Your task to perform on an android device: View the shopping cart on bestbuy. Search for "energizer triple a" on bestbuy, select the first entry, and add it to the cart. Image 0: 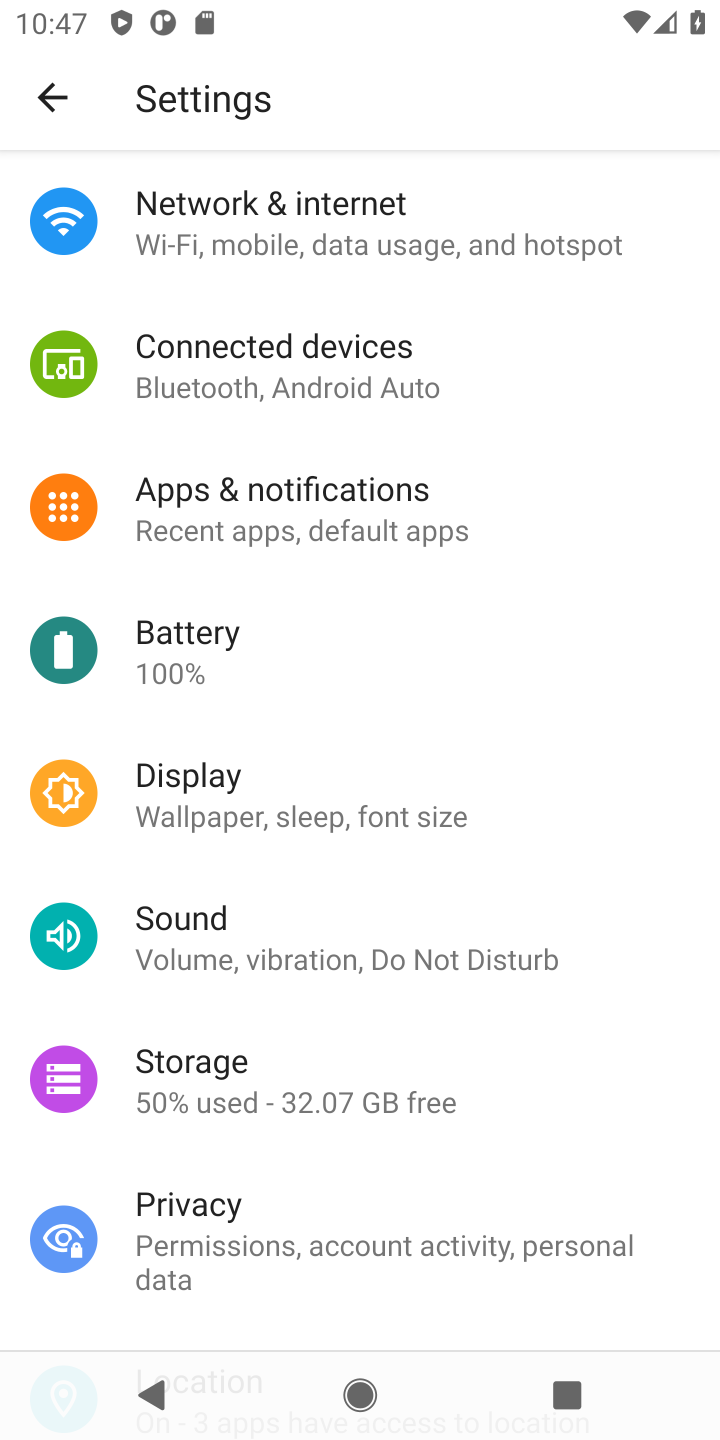
Step 0: press home button
Your task to perform on an android device: View the shopping cart on bestbuy. Search for "energizer triple a" on bestbuy, select the first entry, and add it to the cart. Image 1: 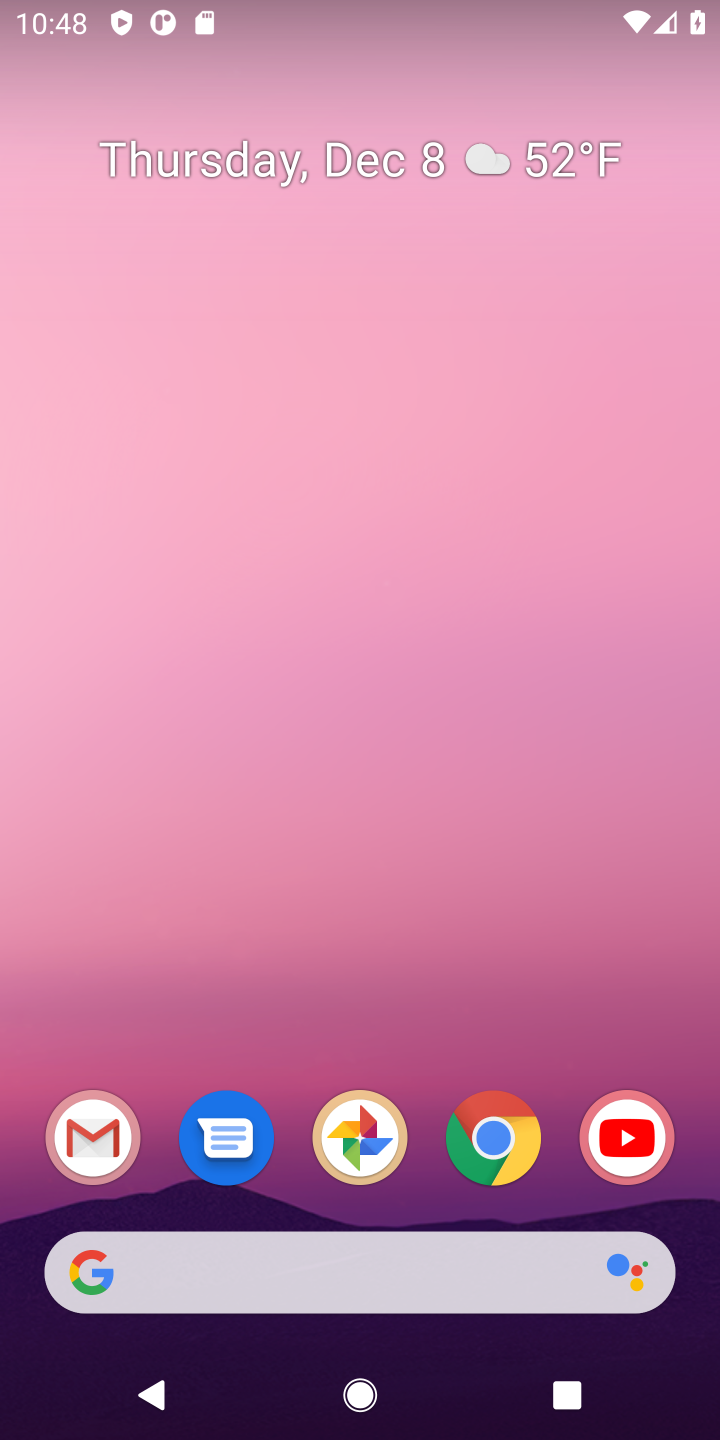
Step 1: click (506, 1117)
Your task to perform on an android device: View the shopping cart on bestbuy. Search for "energizer triple a" on bestbuy, select the first entry, and add it to the cart. Image 2: 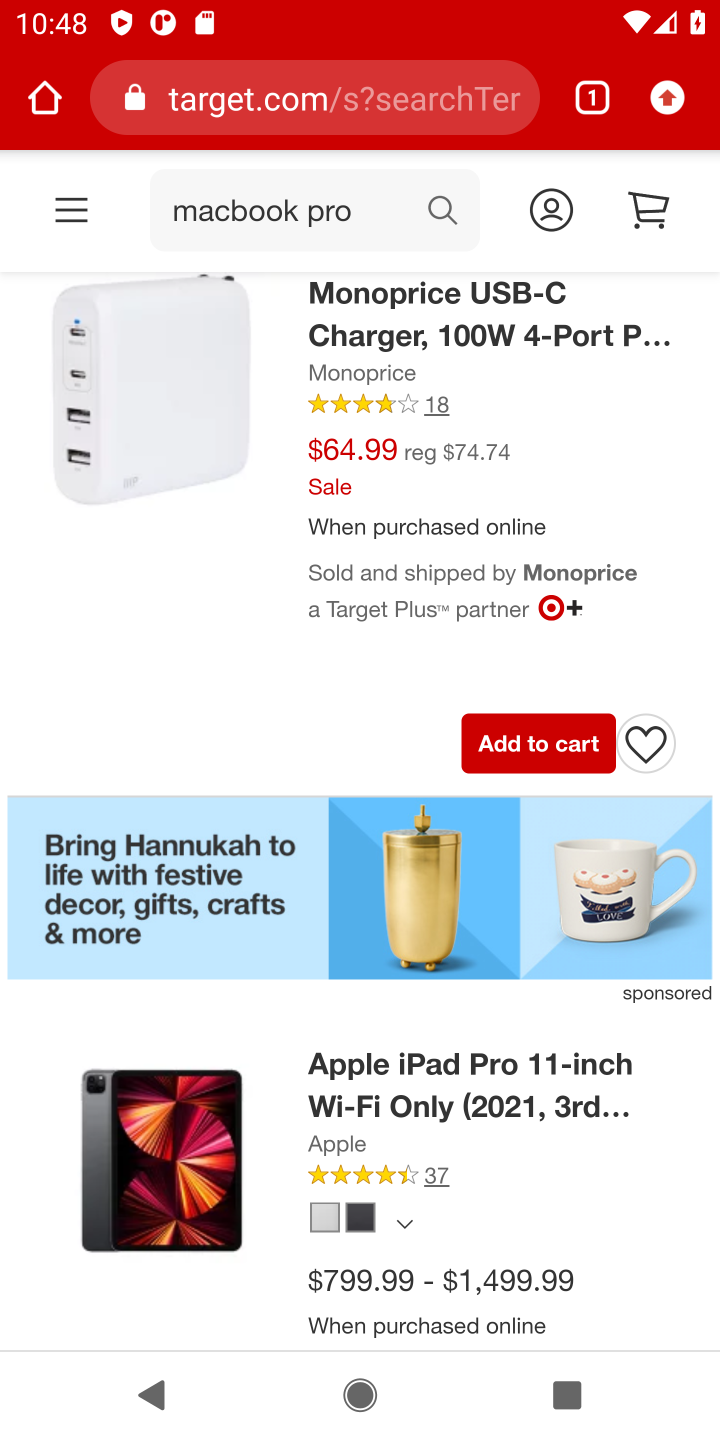
Step 2: click (386, 98)
Your task to perform on an android device: View the shopping cart on bestbuy. Search for "energizer triple a" on bestbuy, select the first entry, and add it to the cart. Image 3: 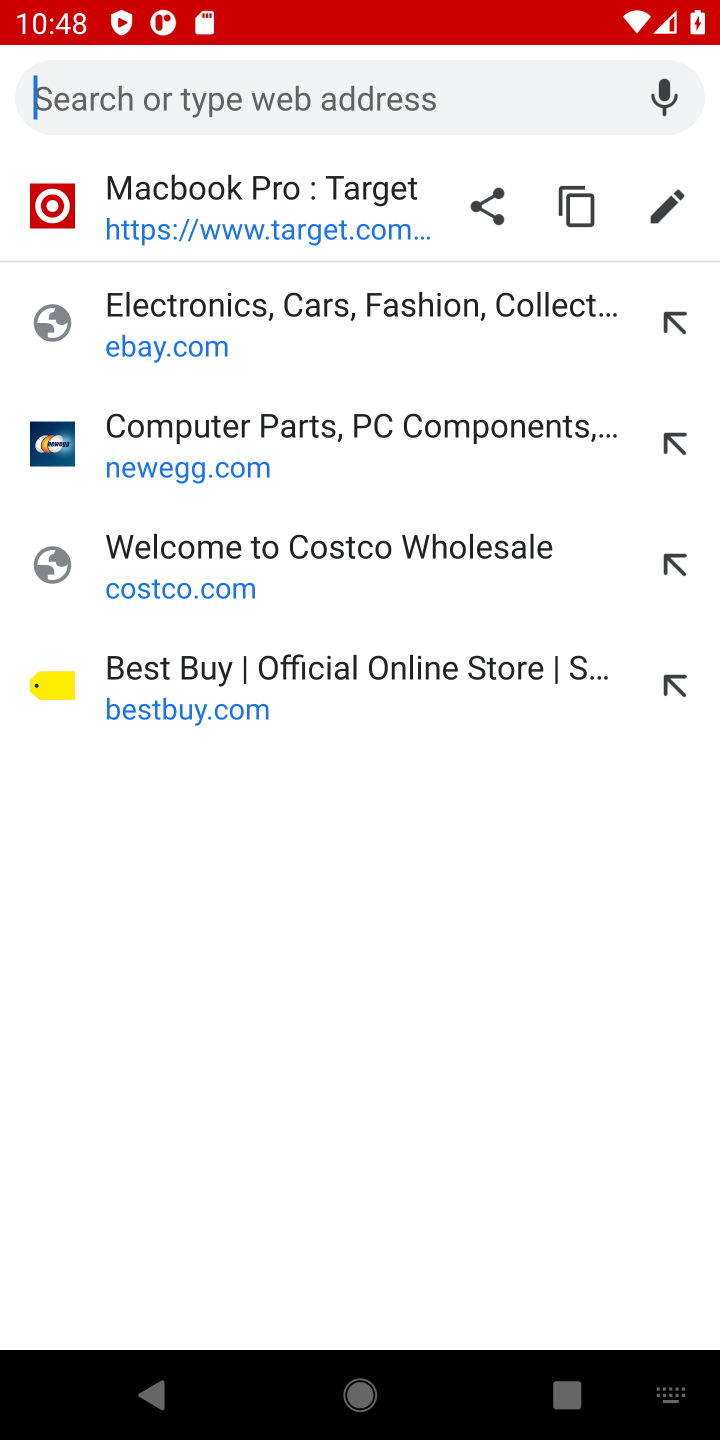
Step 3: click (140, 669)
Your task to perform on an android device: View the shopping cart on bestbuy. Search for "energizer triple a" on bestbuy, select the first entry, and add it to the cart. Image 4: 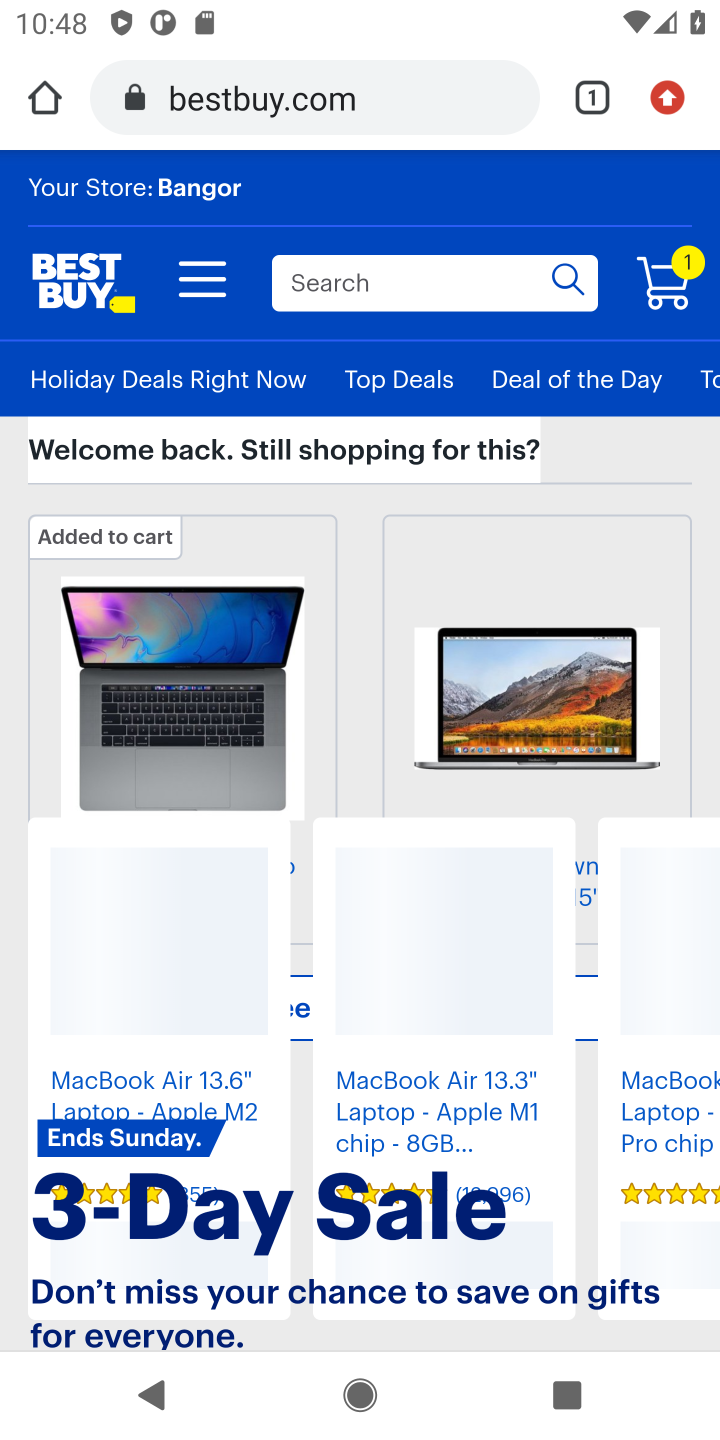
Step 4: click (664, 280)
Your task to perform on an android device: View the shopping cart on bestbuy. Search for "energizer triple a" on bestbuy, select the first entry, and add it to the cart. Image 5: 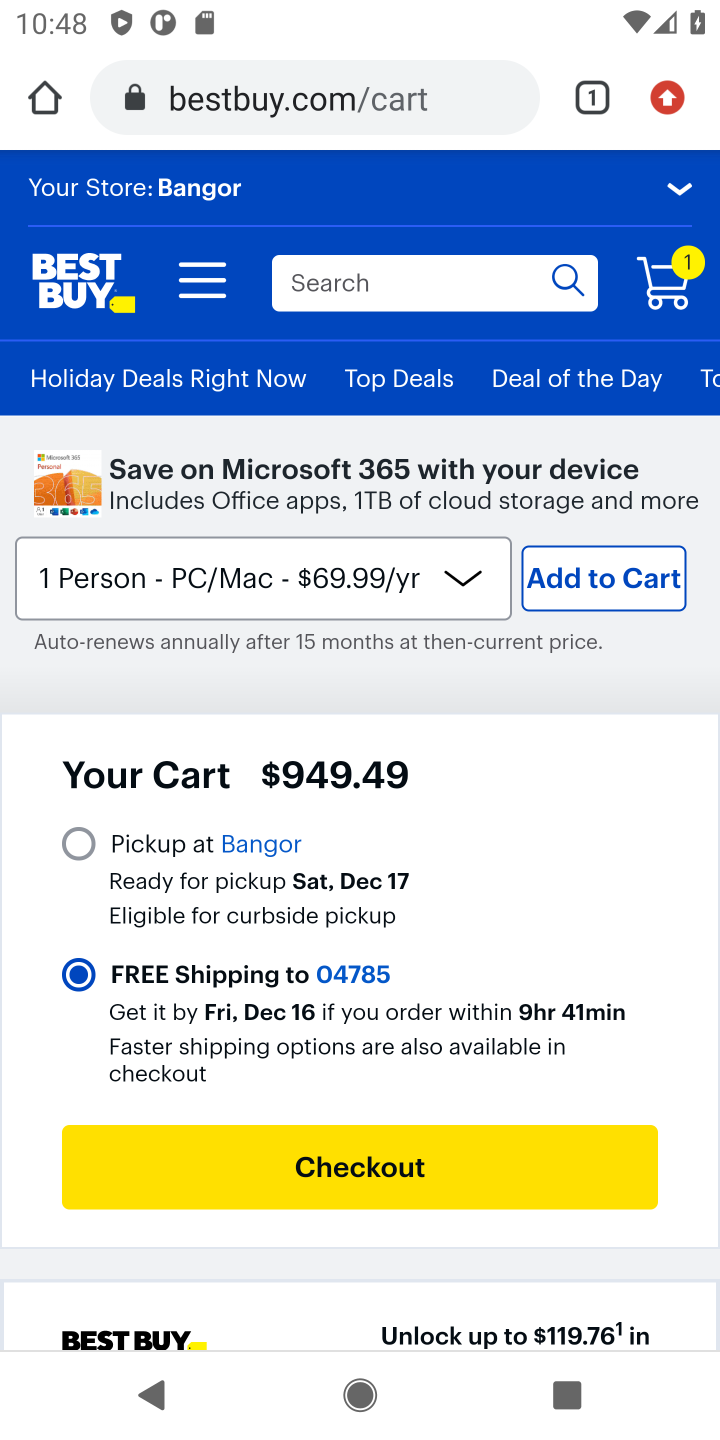
Step 5: click (685, 281)
Your task to perform on an android device: View the shopping cart on bestbuy. Search for "energizer triple a" on bestbuy, select the first entry, and add it to the cart. Image 6: 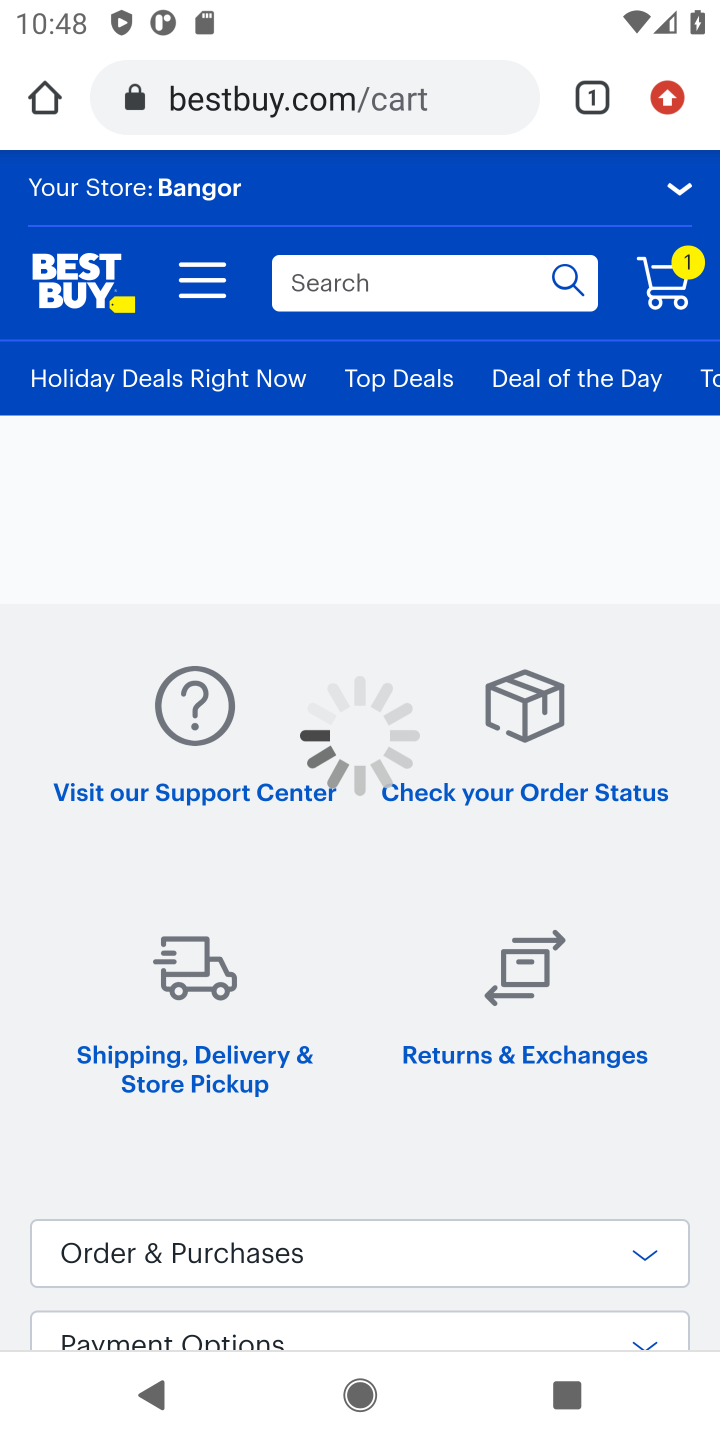
Step 6: click (416, 277)
Your task to perform on an android device: View the shopping cart on bestbuy. Search for "energizer triple a" on bestbuy, select the first entry, and add it to the cart. Image 7: 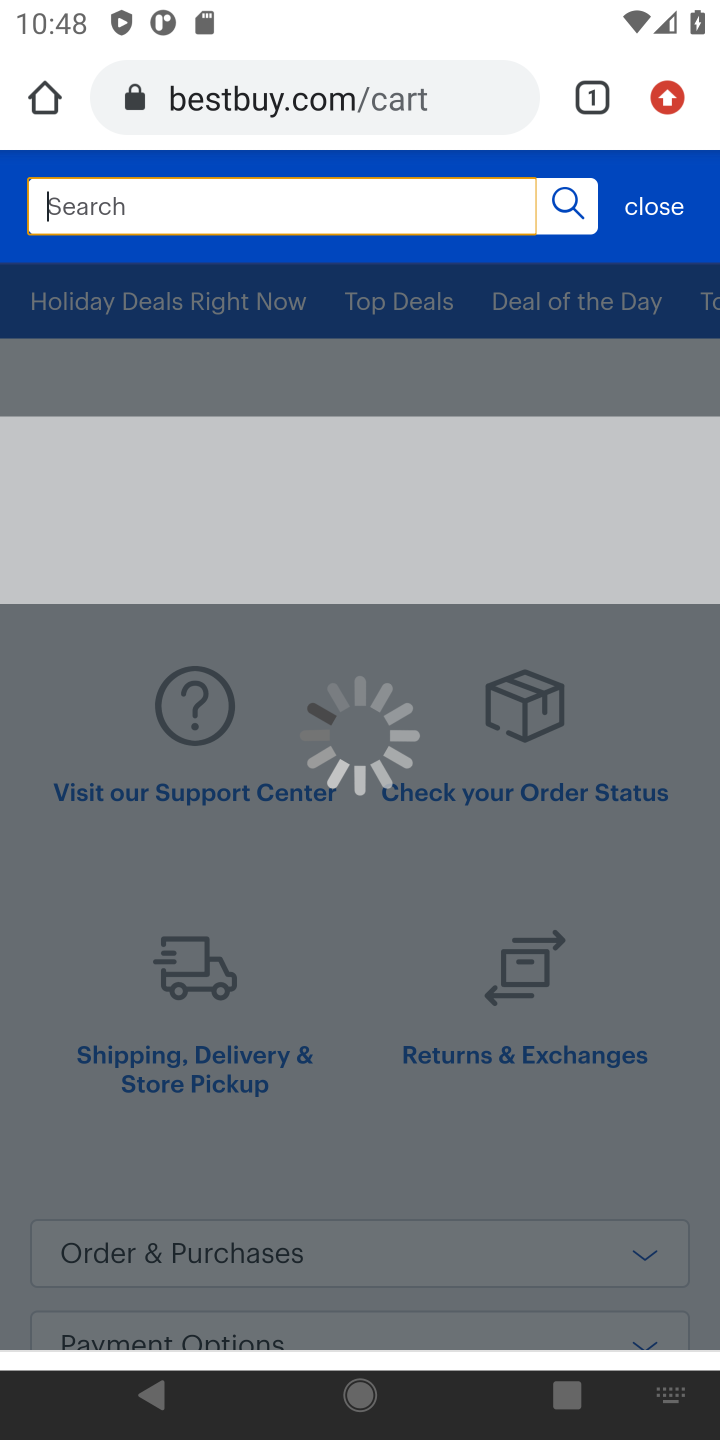
Step 7: click (569, 278)
Your task to perform on an android device: View the shopping cart on bestbuy. Search for "energizer triple a" on bestbuy, select the first entry, and add it to the cart. Image 8: 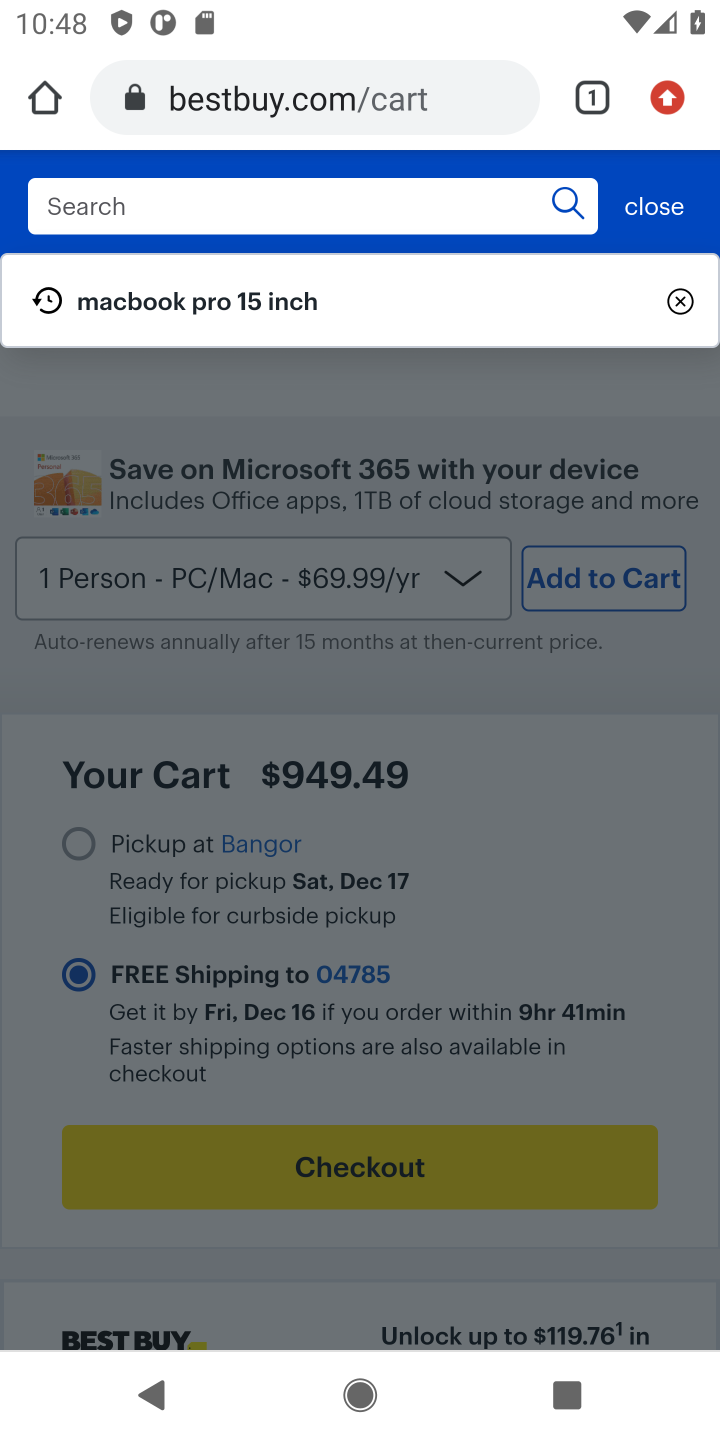
Step 8: type "energizer triple a"
Your task to perform on an android device: View the shopping cart on bestbuy. Search for "energizer triple a" on bestbuy, select the first entry, and add it to the cart. Image 9: 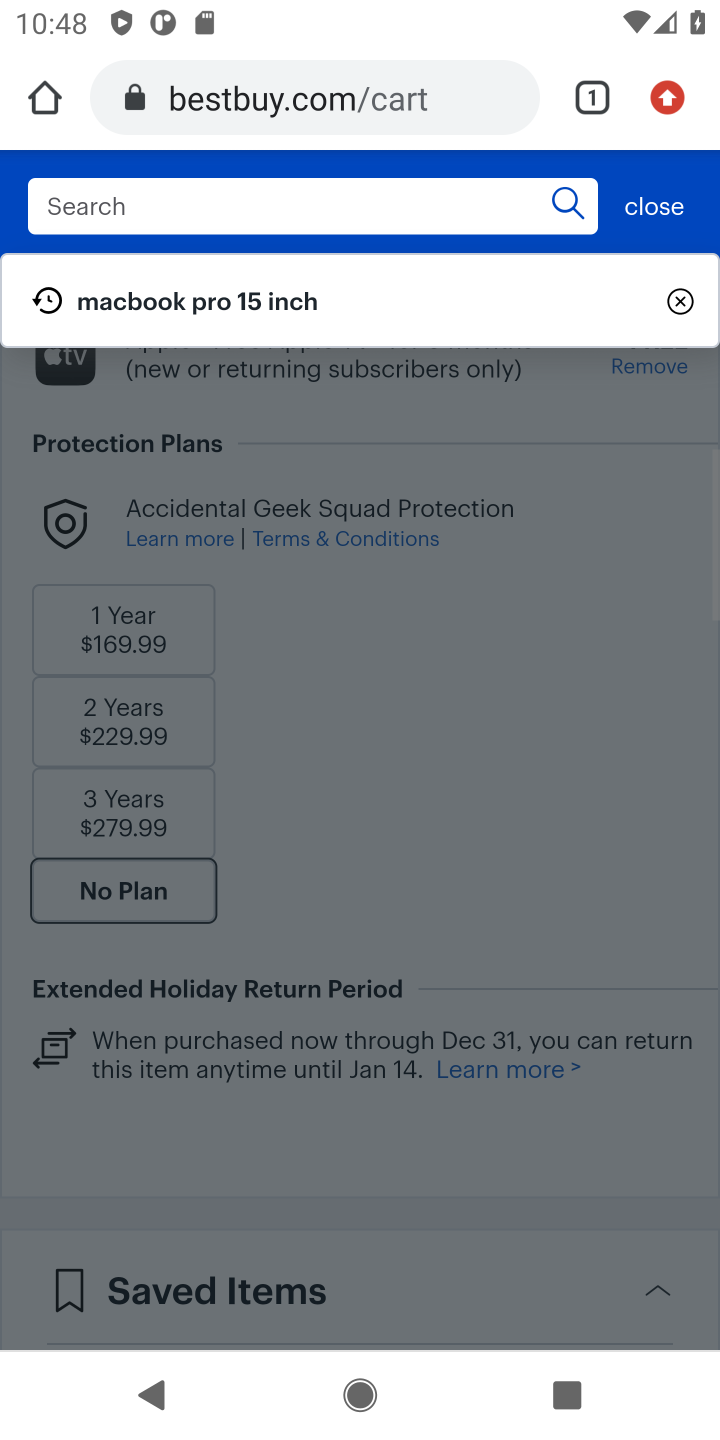
Step 9: press enter
Your task to perform on an android device: View the shopping cart on bestbuy. Search for "energizer triple a" on bestbuy, select the first entry, and add it to the cart. Image 10: 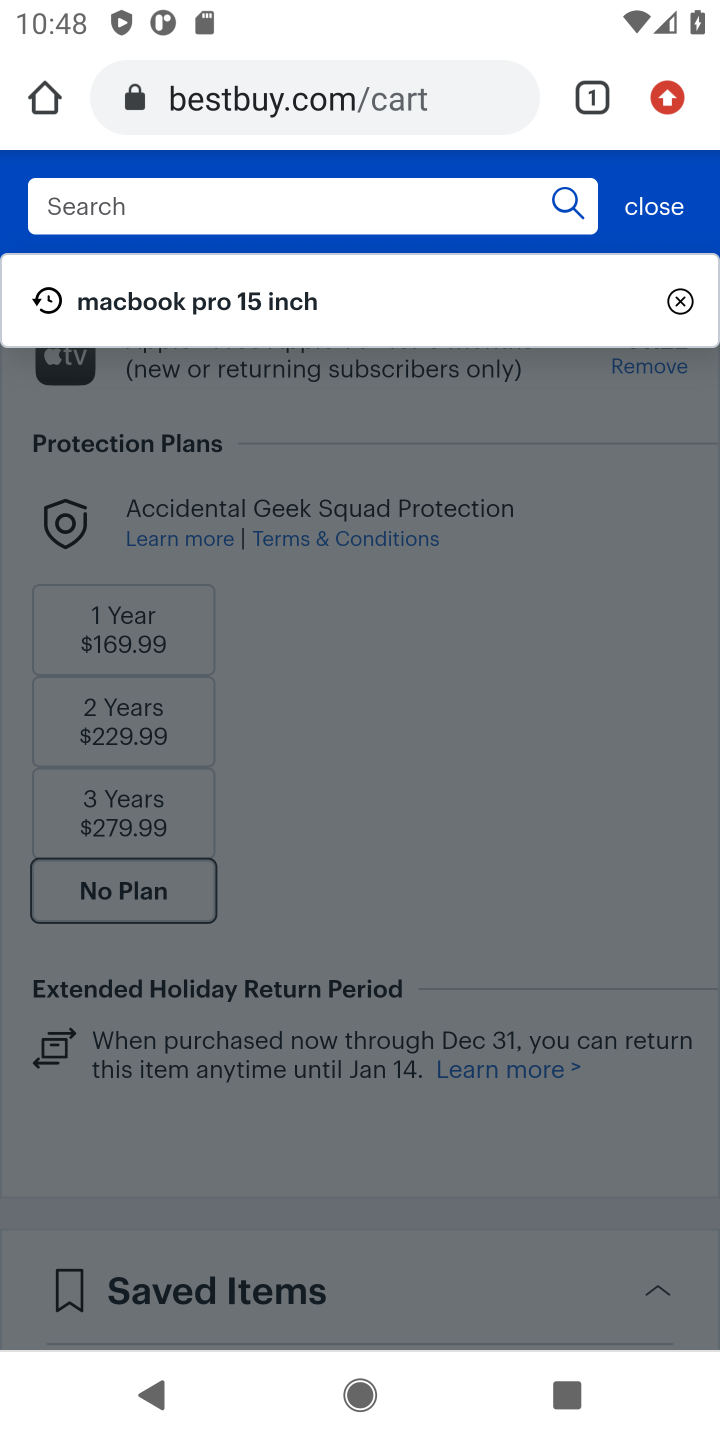
Step 10: click (560, 199)
Your task to perform on an android device: View the shopping cart on bestbuy. Search for "energizer triple a" on bestbuy, select the first entry, and add it to the cart. Image 11: 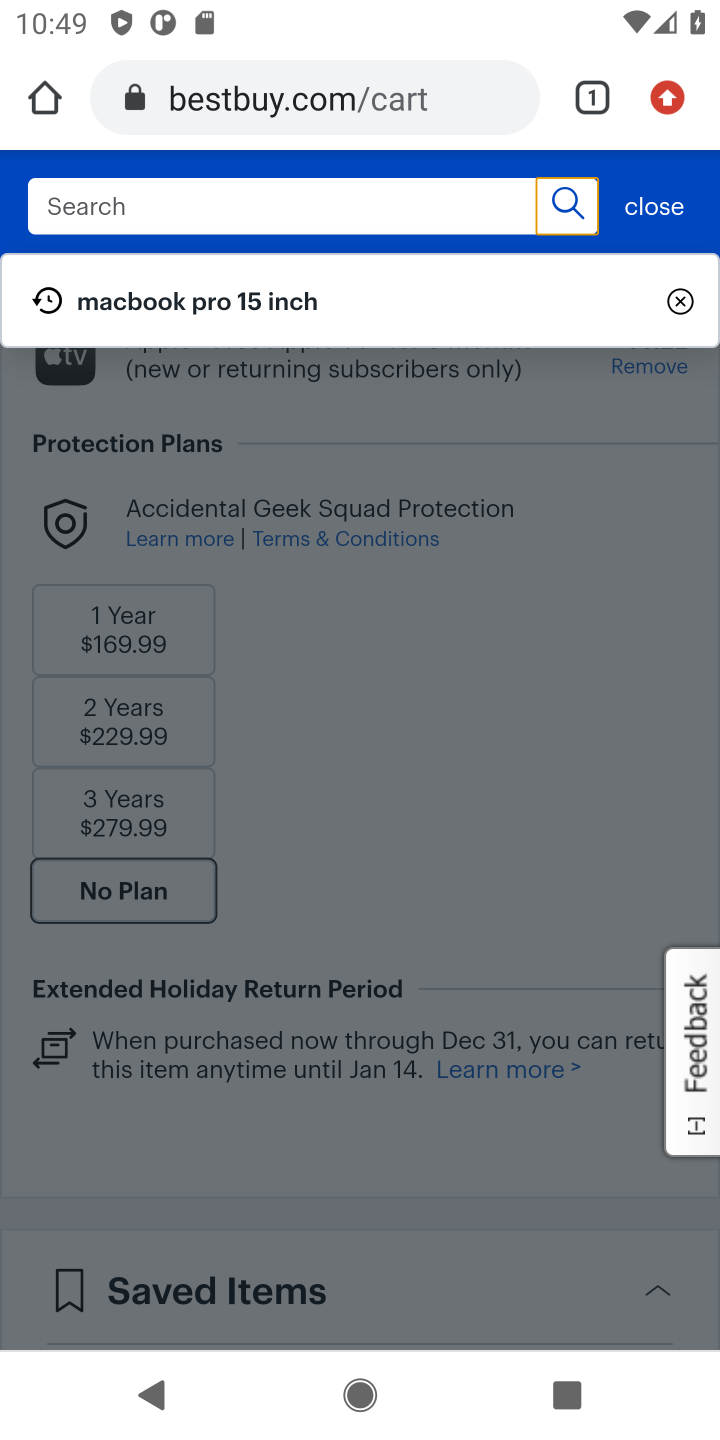
Step 11: type "energizer triple a"
Your task to perform on an android device: View the shopping cart on bestbuy. Search for "energizer triple a" on bestbuy, select the first entry, and add it to the cart. Image 12: 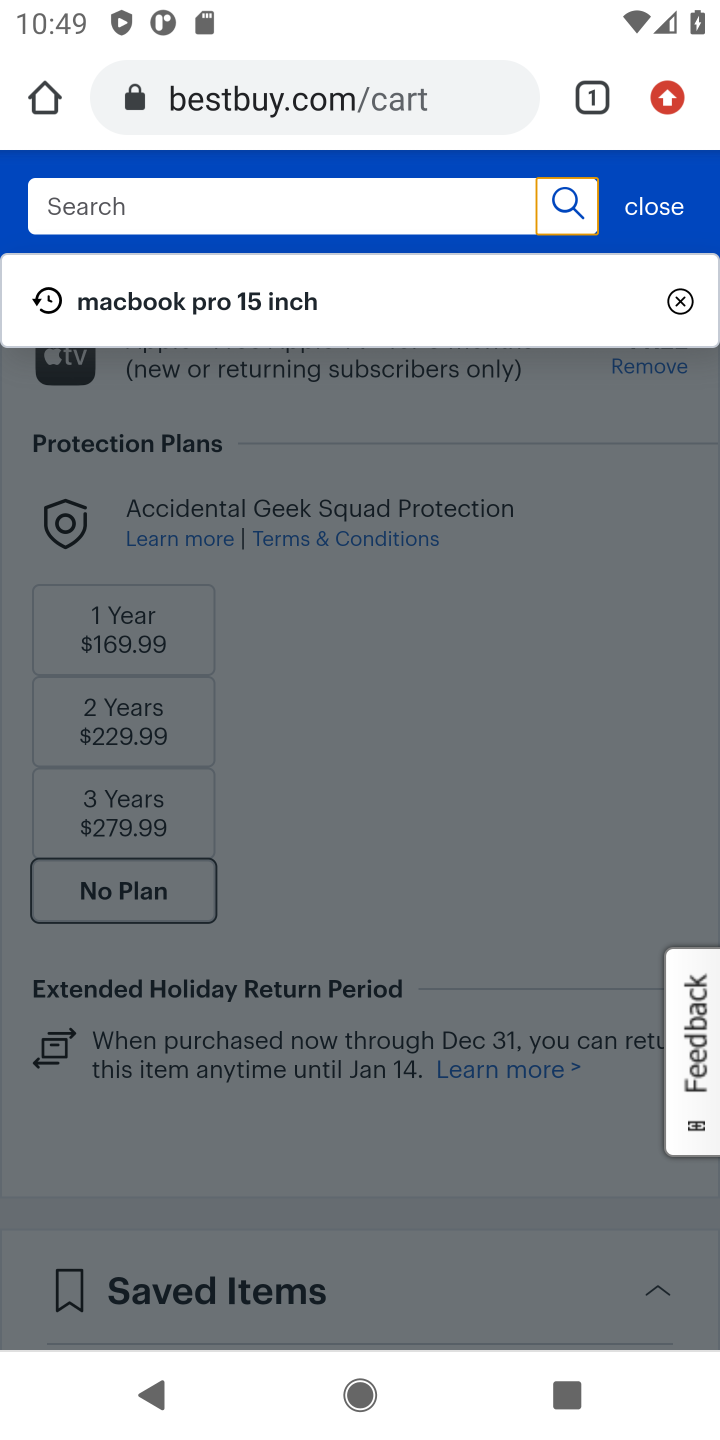
Step 12: press enter
Your task to perform on an android device: View the shopping cart on bestbuy. Search for "energizer triple a" on bestbuy, select the first entry, and add it to the cart. Image 13: 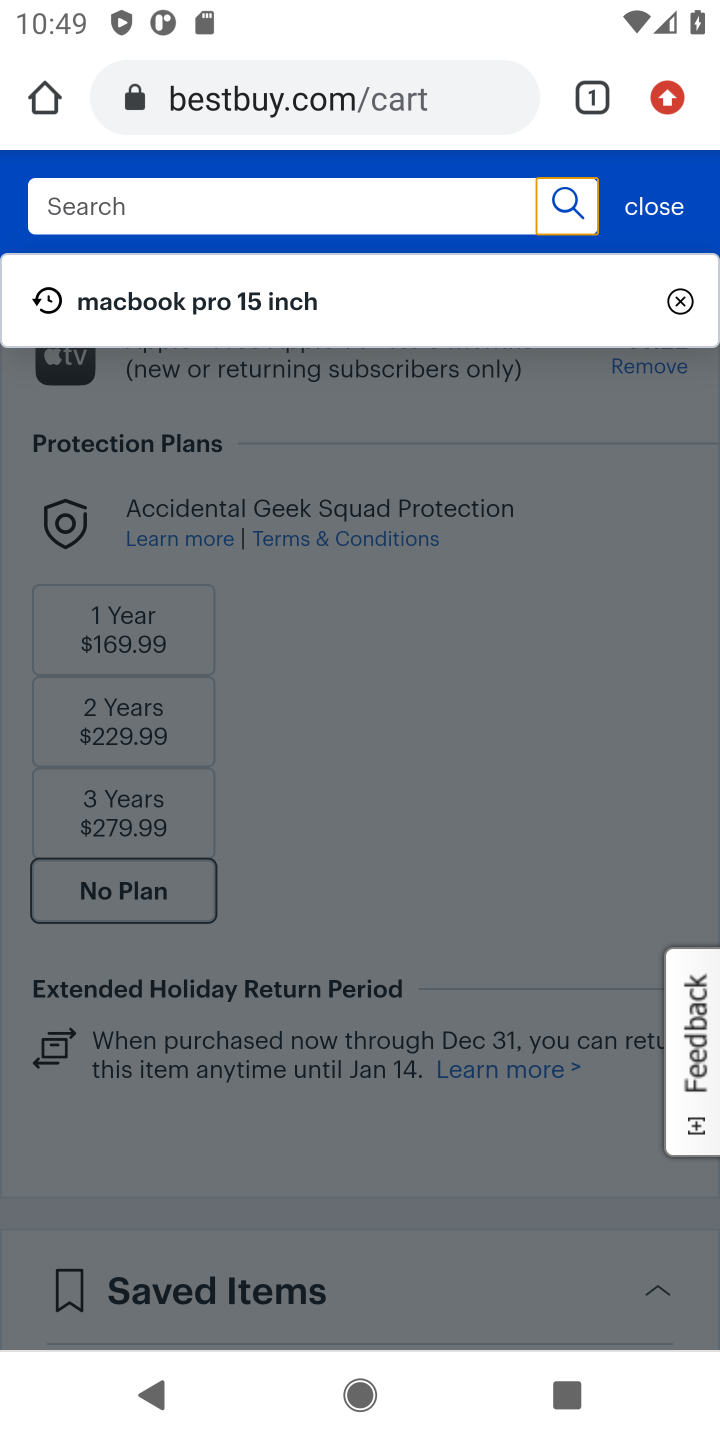
Step 13: click (481, 213)
Your task to perform on an android device: View the shopping cart on bestbuy. Search for "energizer triple a" on bestbuy, select the first entry, and add it to the cart. Image 14: 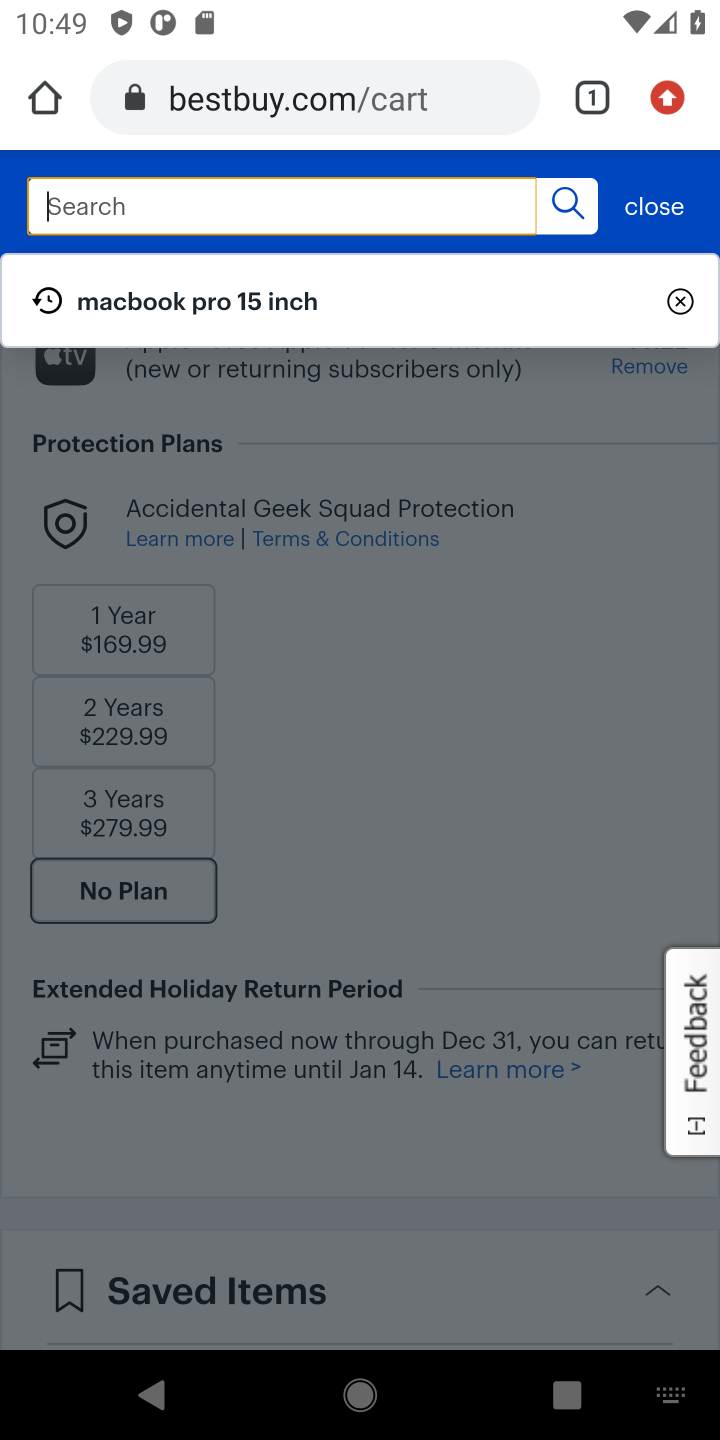
Step 14: click (688, 297)
Your task to perform on an android device: View the shopping cart on bestbuy. Search for "energizer triple a" on bestbuy, select the first entry, and add it to the cart. Image 15: 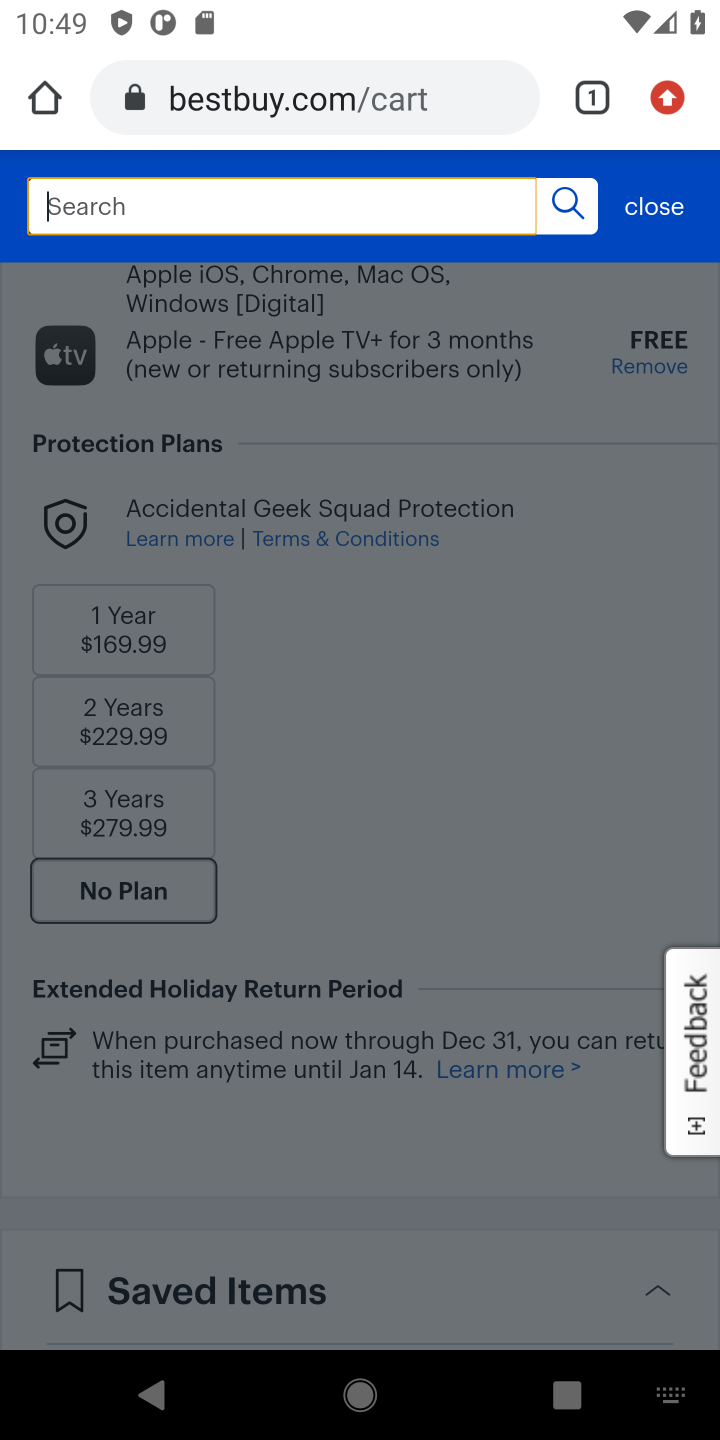
Step 15: type "energizer triple a"
Your task to perform on an android device: View the shopping cart on bestbuy. Search for "energizer triple a" on bestbuy, select the first entry, and add it to the cart. Image 16: 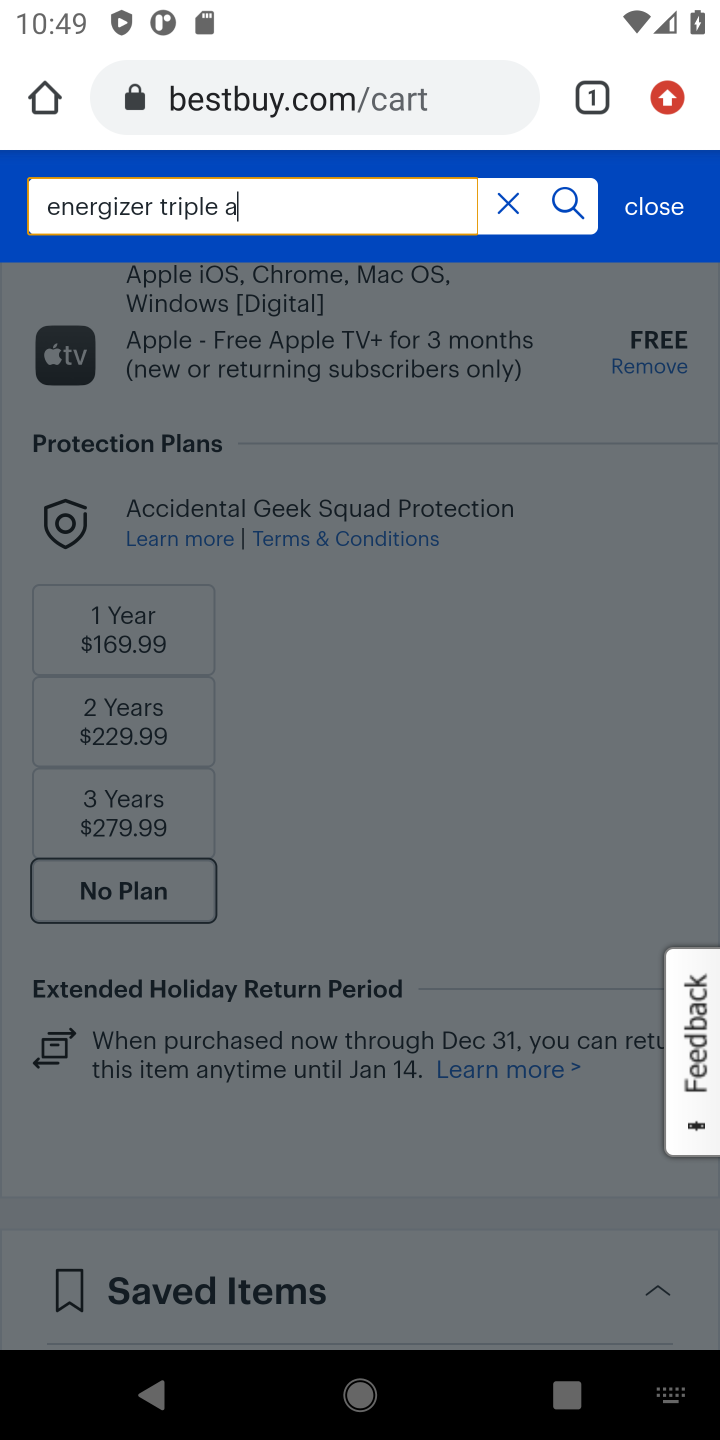
Step 16: press enter
Your task to perform on an android device: View the shopping cart on bestbuy. Search for "energizer triple a" on bestbuy, select the first entry, and add it to the cart. Image 17: 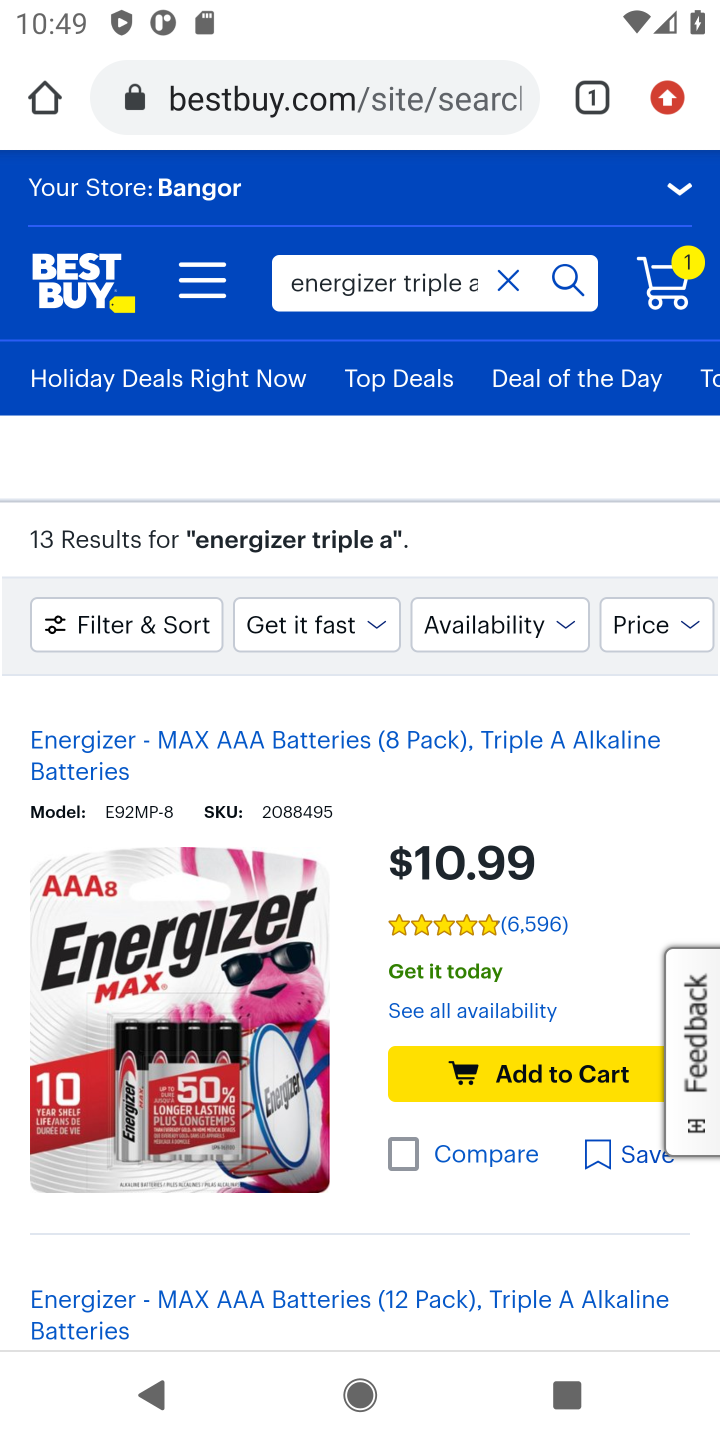
Step 17: click (261, 995)
Your task to perform on an android device: View the shopping cart on bestbuy. Search for "energizer triple a" on bestbuy, select the first entry, and add it to the cart. Image 18: 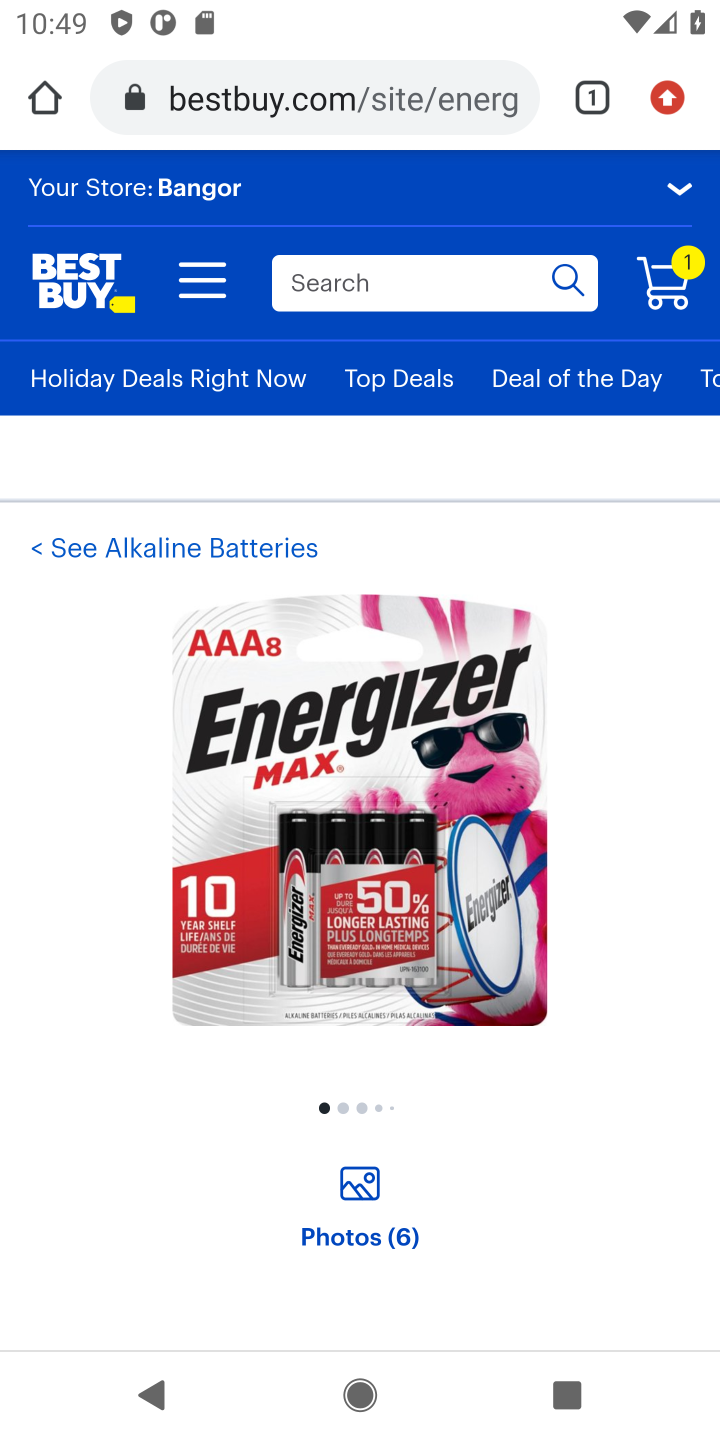
Step 18: drag from (556, 1152) to (512, 0)
Your task to perform on an android device: View the shopping cart on bestbuy. Search for "energizer triple a" on bestbuy, select the first entry, and add it to the cart. Image 19: 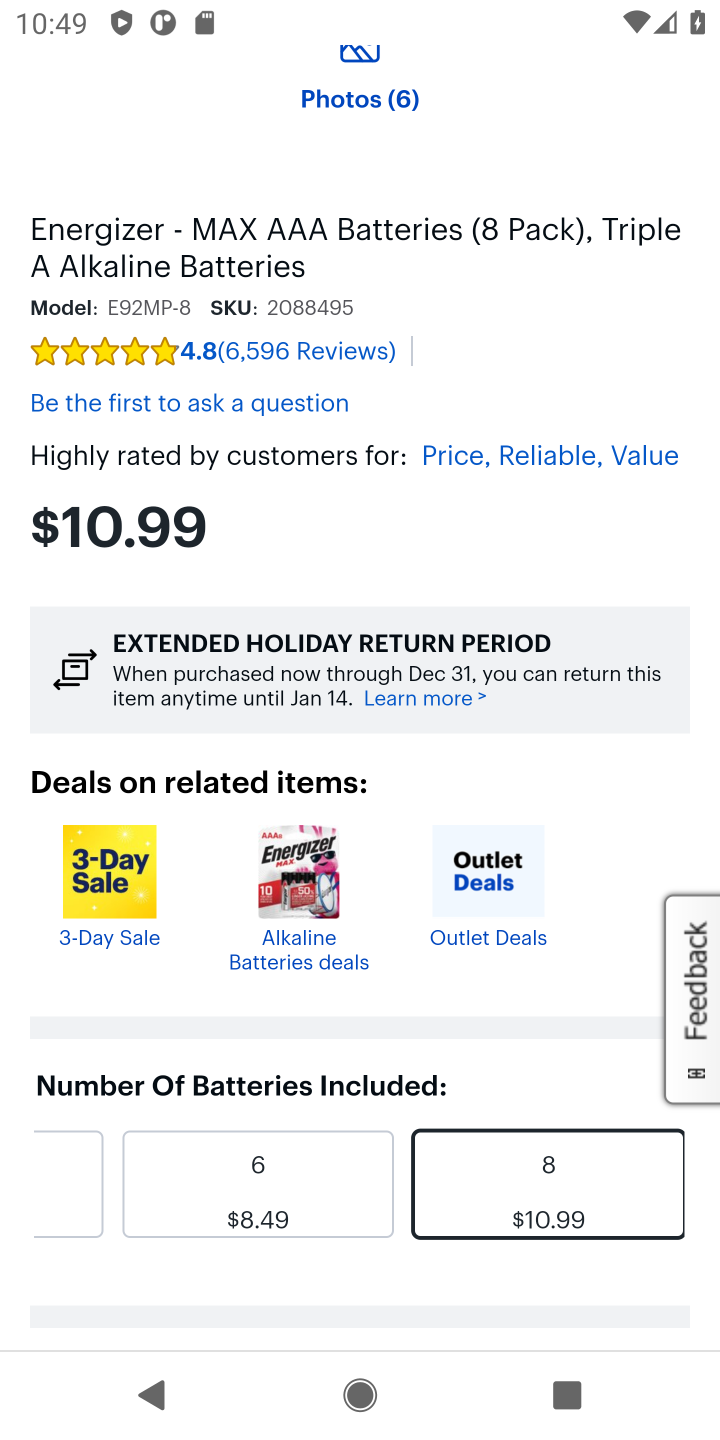
Step 19: drag from (517, 874) to (437, 126)
Your task to perform on an android device: View the shopping cart on bestbuy. Search for "energizer triple a" on bestbuy, select the first entry, and add it to the cart. Image 20: 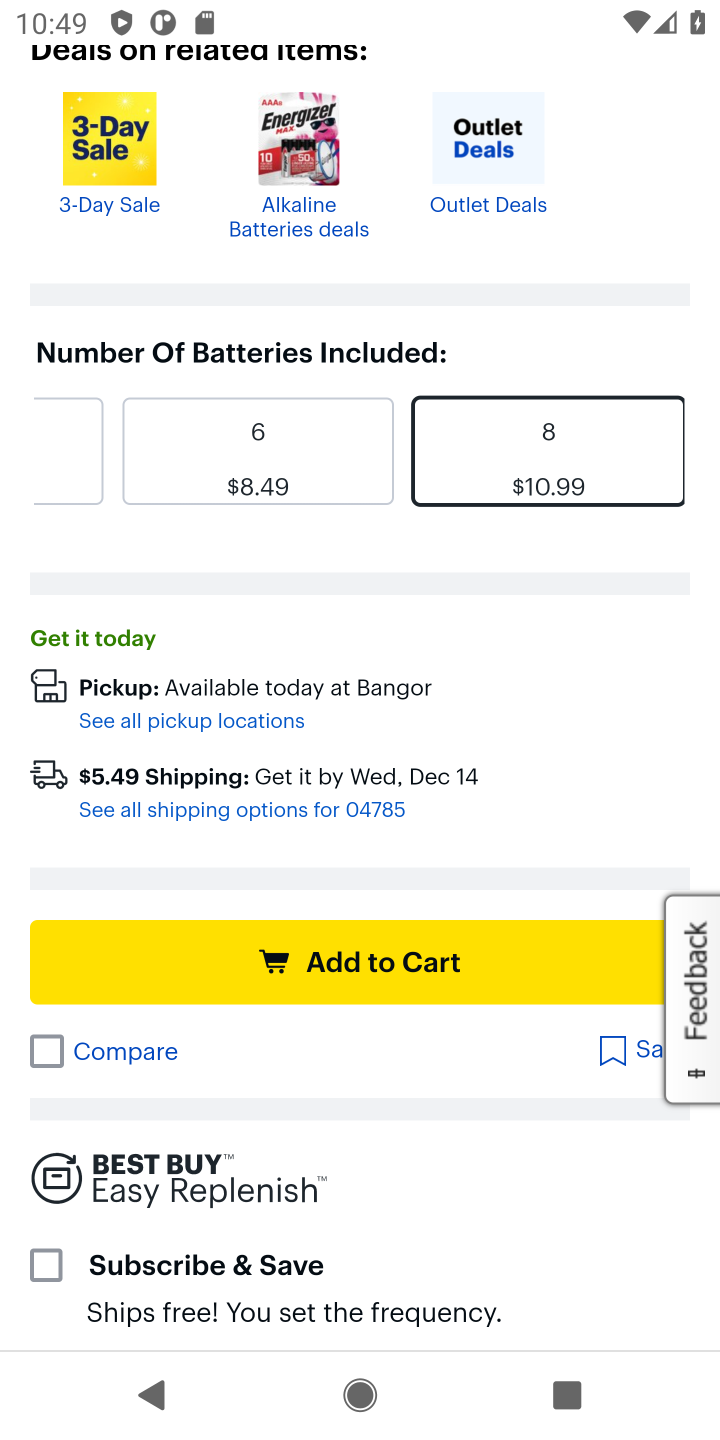
Step 20: click (370, 963)
Your task to perform on an android device: View the shopping cart on bestbuy. Search for "energizer triple a" on bestbuy, select the first entry, and add it to the cart. Image 21: 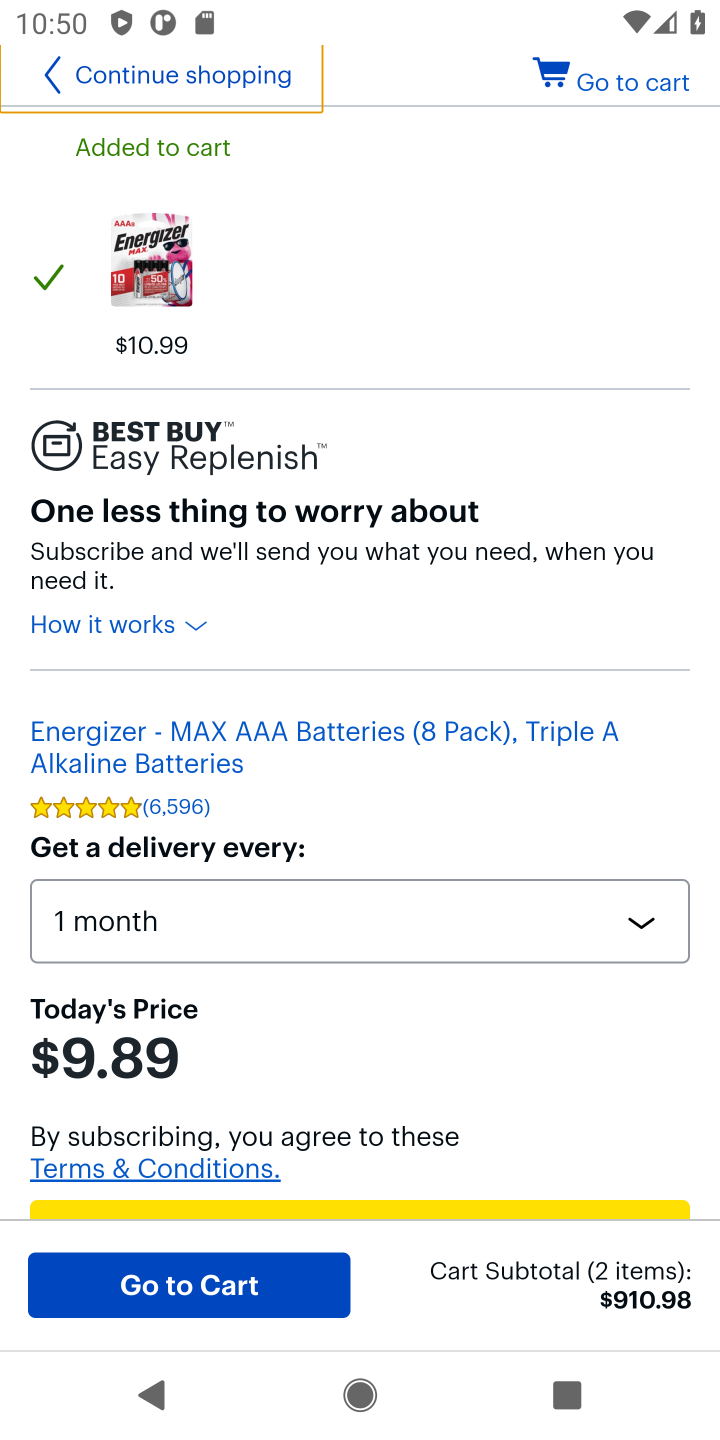
Step 21: click (262, 1294)
Your task to perform on an android device: View the shopping cart on bestbuy. Search for "energizer triple a" on bestbuy, select the first entry, and add it to the cart. Image 22: 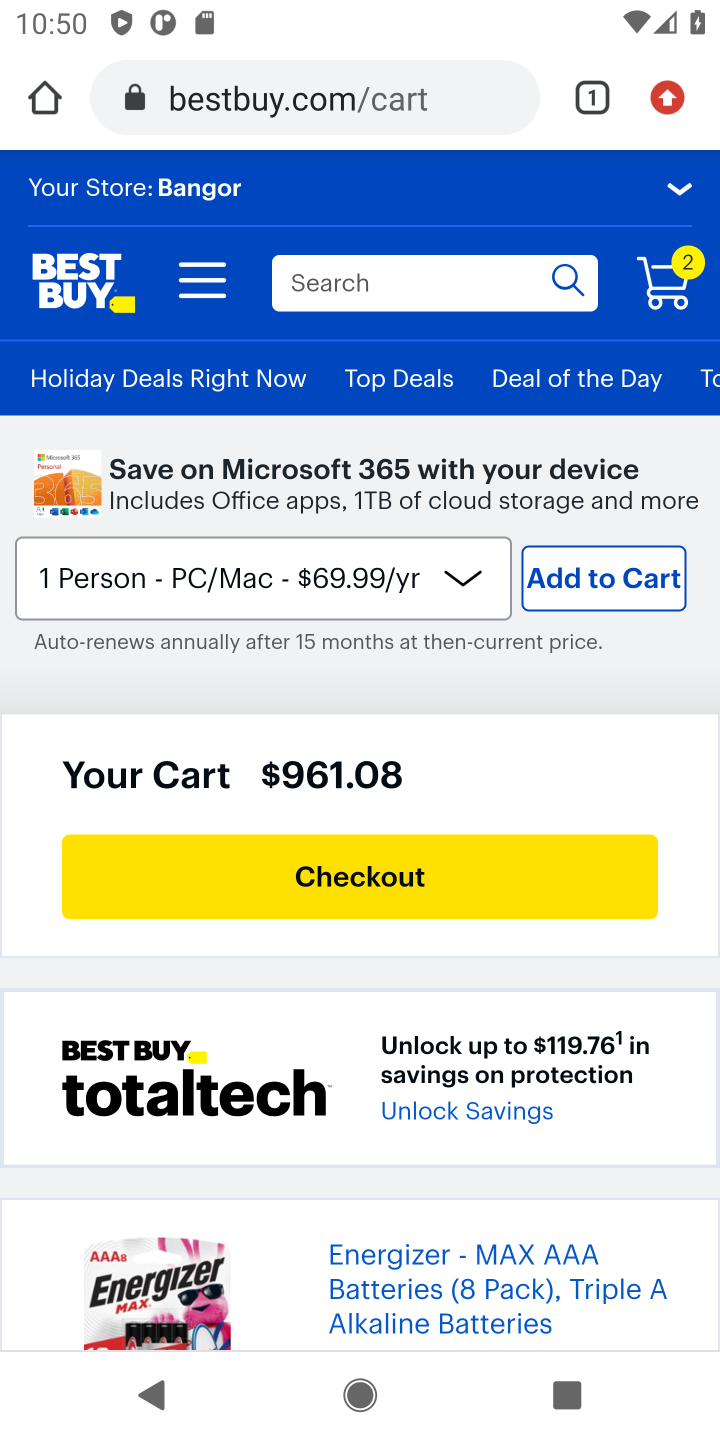
Step 22: task complete